Your task to perform on an android device: stop showing notifications on the lock screen Image 0: 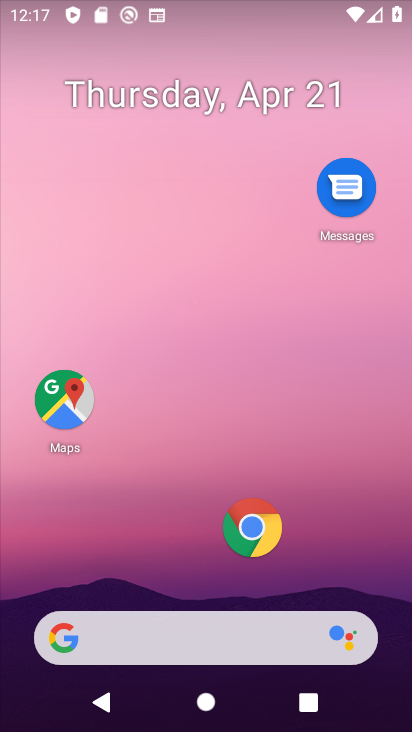
Step 0: drag from (331, 579) to (381, 157)
Your task to perform on an android device: stop showing notifications on the lock screen Image 1: 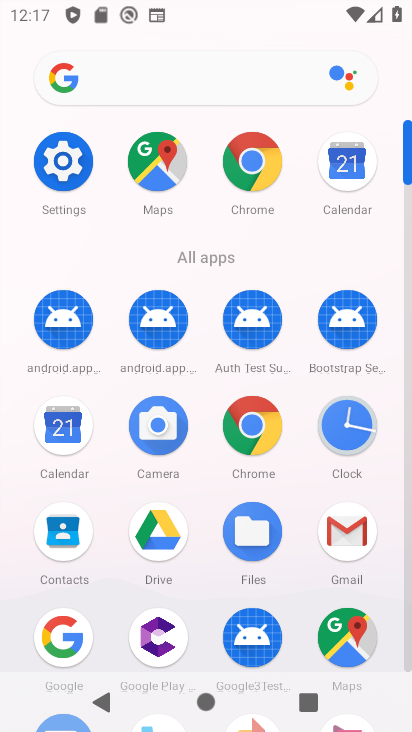
Step 1: click (83, 174)
Your task to perform on an android device: stop showing notifications on the lock screen Image 2: 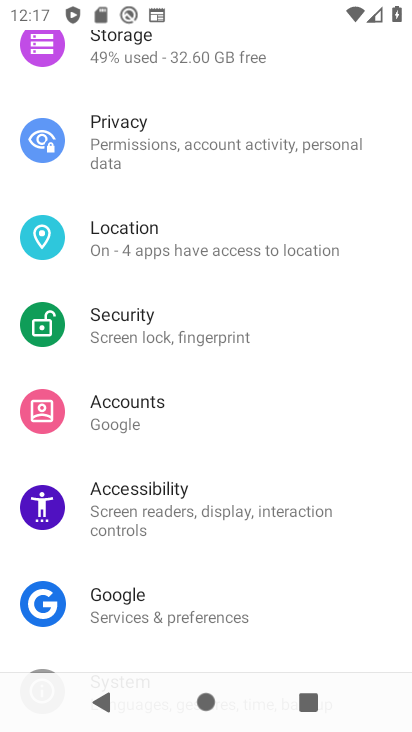
Step 2: drag from (153, 316) to (166, 386)
Your task to perform on an android device: stop showing notifications on the lock screen Image 3: 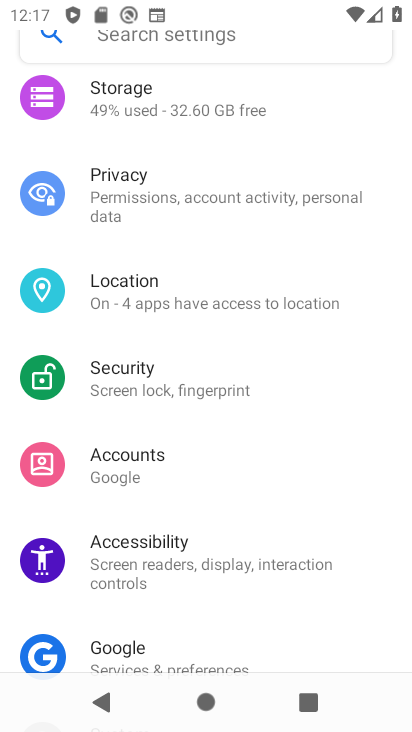
Step 3: drag from (148, 304) to (190, 390)
Your task to perform on an android device: stop showing notifications on the lock screen Image 4: 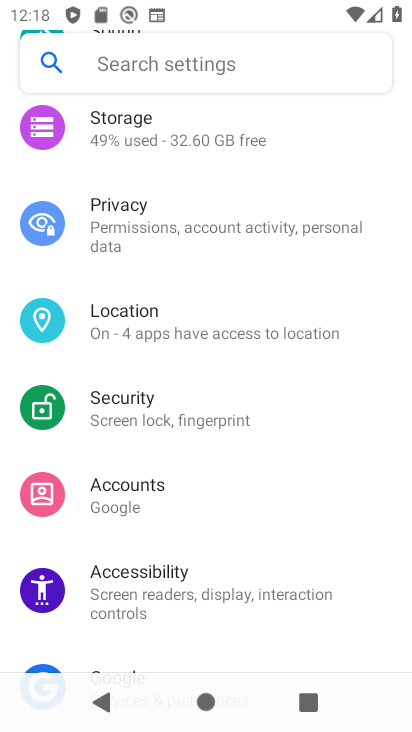
Step 4: drag from (164, 315) to (218, 403)
Your task to perform on an android device: stop showing notifications on the lock screen Image 5: 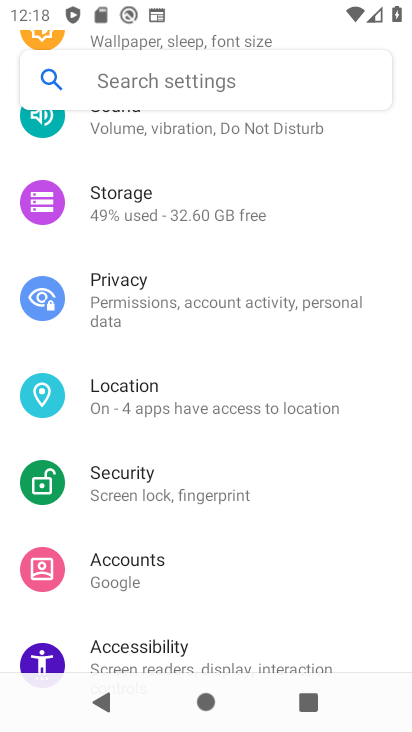
Step 5: drag from (195, 330) to (231, 402)
Your task to perform on an android device: stop showing notifications on the lock screen Image 6: 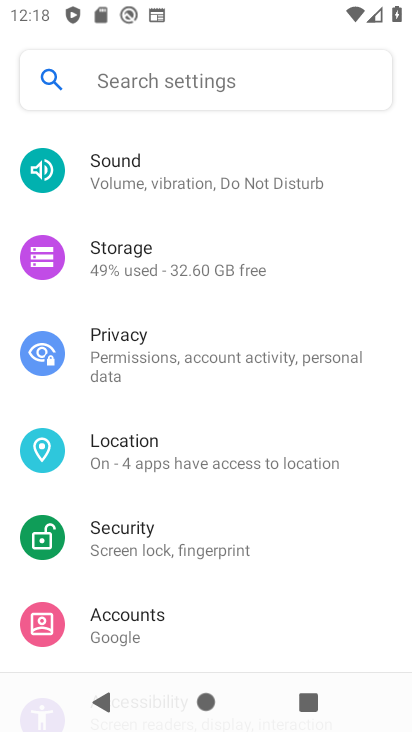
Step 6: drag from (193, 345) to (258, 439)
Your task to perform on an android device: stop showing notifications on the lock screen Image 7: 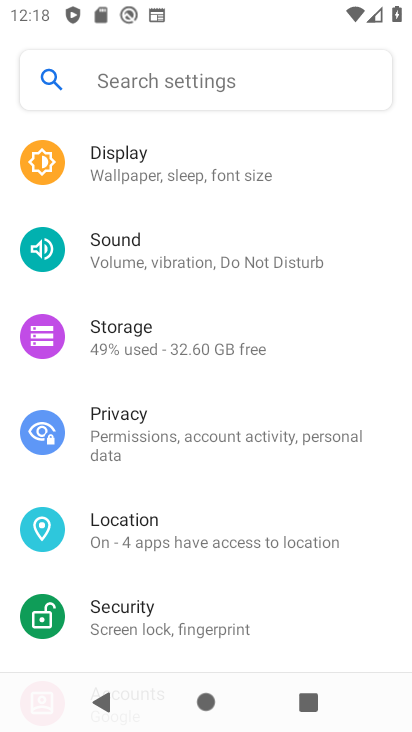
Step 7: drag from (209, 343) to (272, 422)
Your task to perform on an android device: stop showing notifications on the lock screen Image 8: 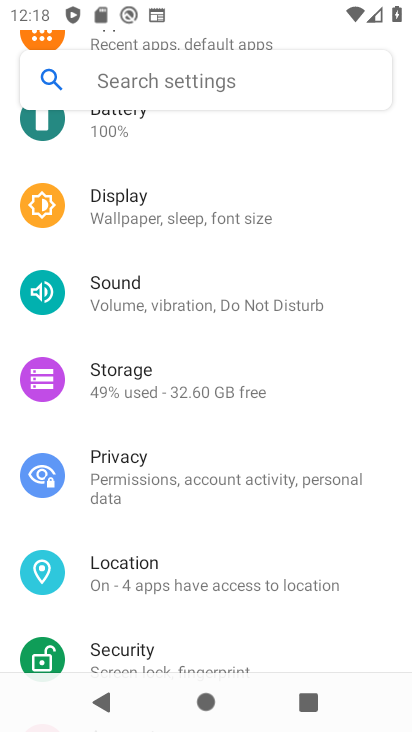
Step 8: drag from (247, 327) to (304, 412)
Your task to perform on an android device: stop showing notifications on the lock screen Image 9: 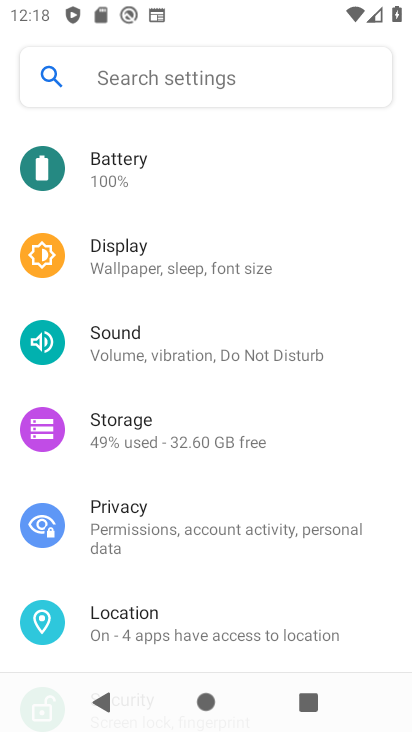
Step 9: drag from (267, 319) to (307, 391)
Your task to perform on an android device: stop showing notifications on the lock screen Image 10: 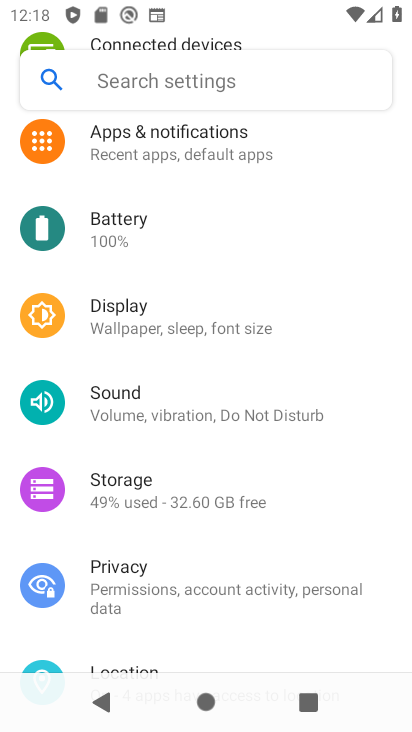
Step 10: drag from (267, 325) to (328, 422)
Your task to perform on an android device: stop showing notifications on the lock screen Image 11: 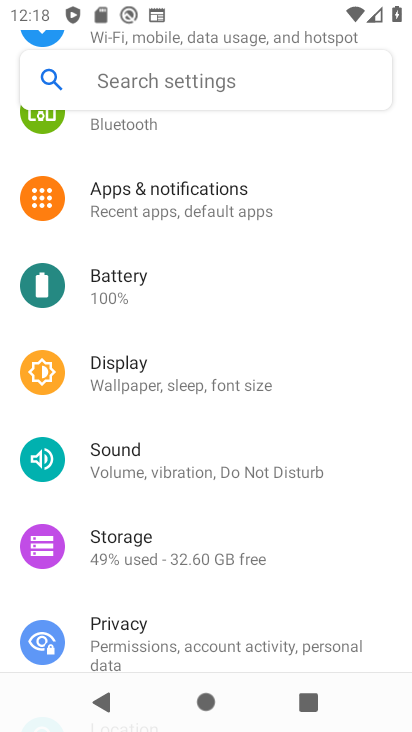
Step 11: click (245, 195)
Your task to perform on an android device: stop showing notifications on the lock screen Image 12: 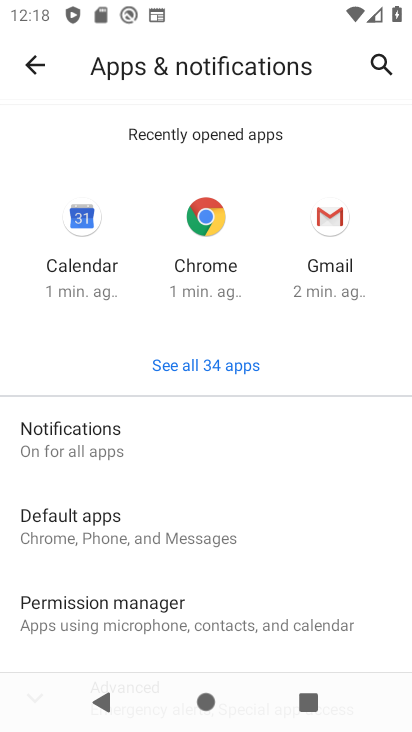
Step 12: drag from (212, 585) to (222, 536)
Your task to perform on an android device: stop showing notifications on the lock screen Image 13: 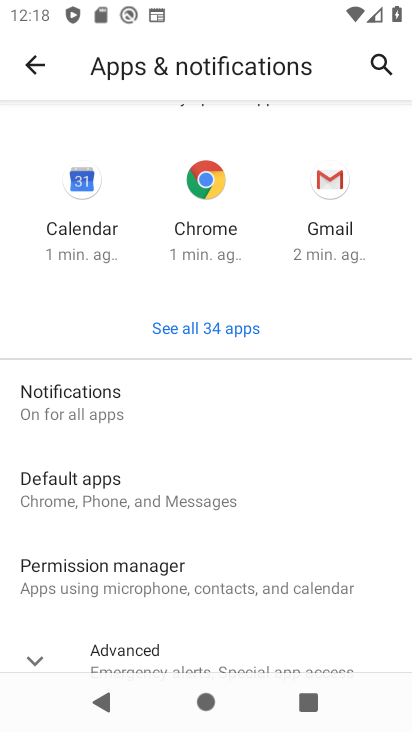
Step 13: click (171, 405)
Your task to perform on an android device: stop showing notifications on the lock screen Image 14: 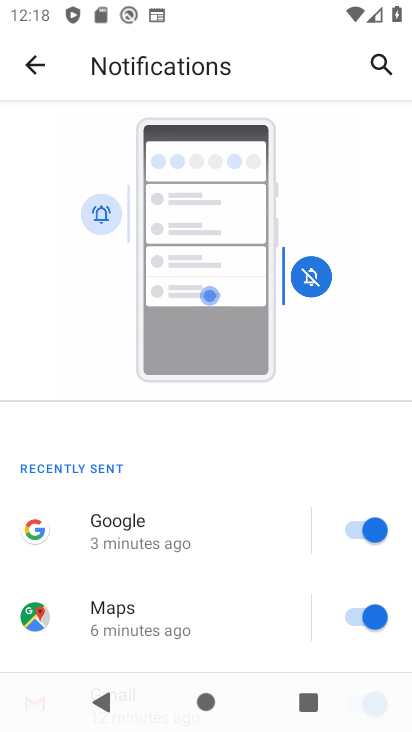
Step 14: drag from (175, 503) to (213, 400)
Your task to perform on an android device: stop showing notifications on the lock screen Image 15: 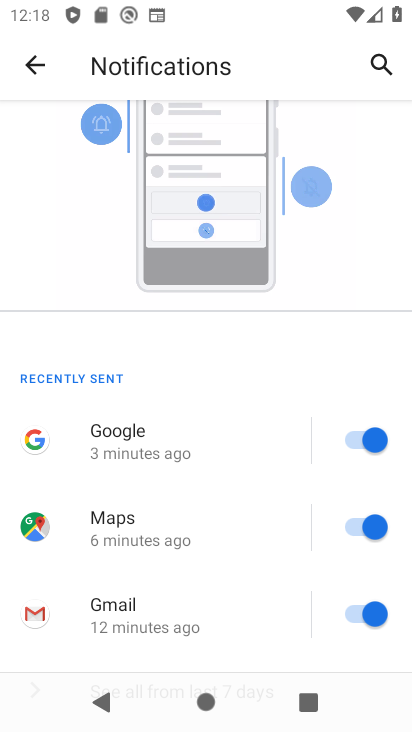
Step 15: drag from (184, 546) to (216, 415)
Your task to perform on an android device: stop showing notifications on the lock screen Image 16: 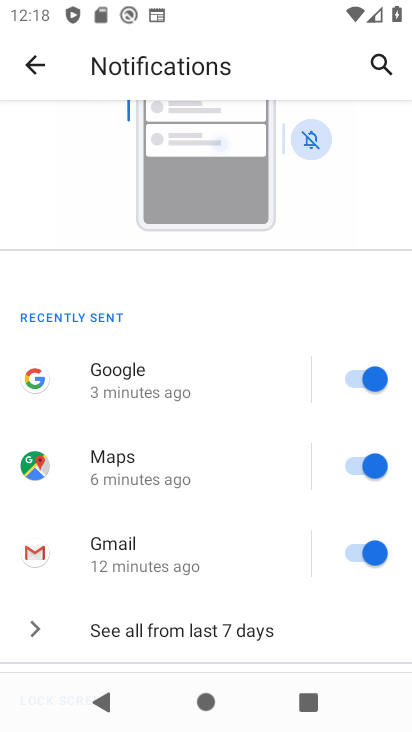
Step 16: drag from (181, 554) to (232, 399)
Your task to perform on an android device: stop showing notifications on the lock screen Image 17: 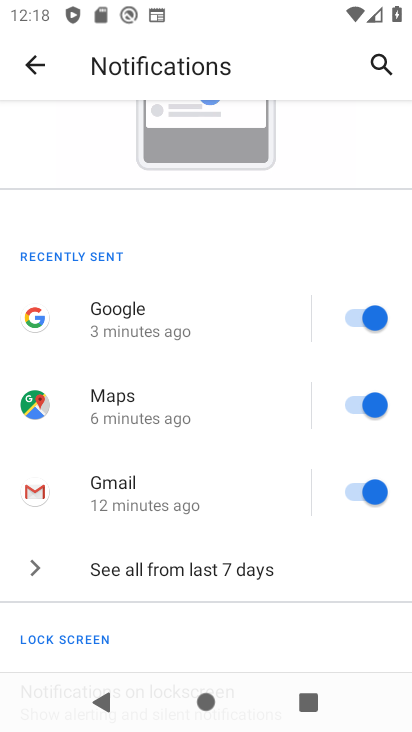
Step 17: drag from (226, 540) to (288, 427)
Your task to perform on an android device: stop showing notifications on the lock screen Image 18: 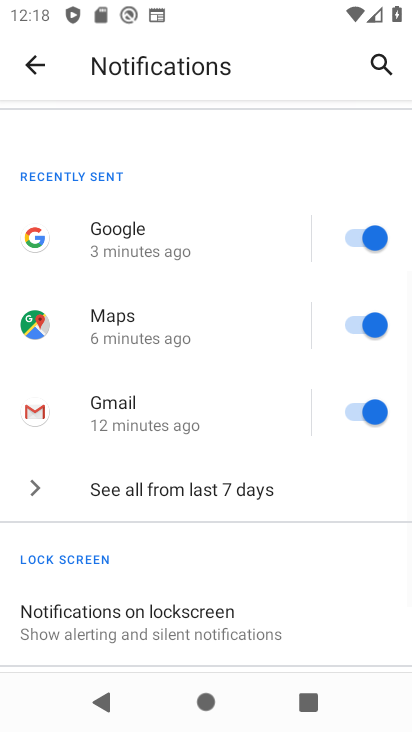
Step 18: drag from (241, 568) to (273, 467)
Your task to perform on an android device: stop showing notifications on the lock screen Image 19: 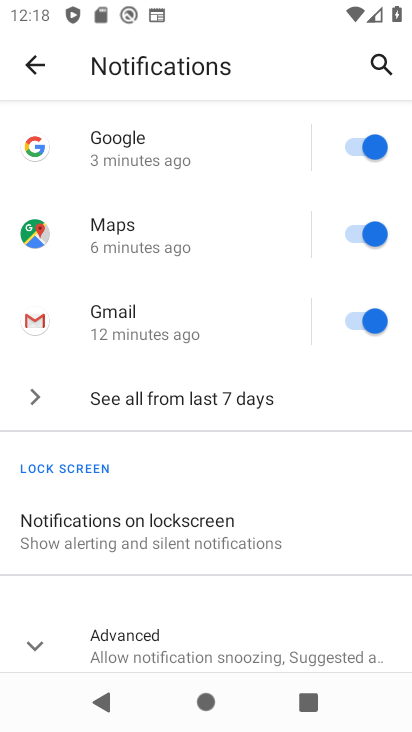
Step 19: click (233, 535)
Your task to perform on an android device: stop showing notifications on the lock screen Image 20: 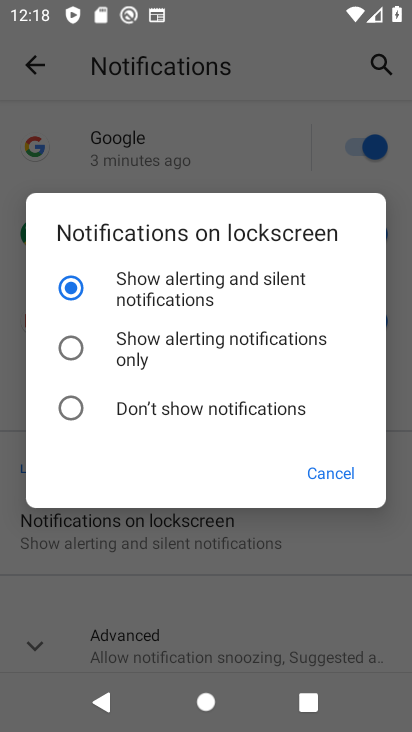
Step 20: click (258, 410)
Your task to perform on an android device: stop showing notifications on the lock screen Image 21: 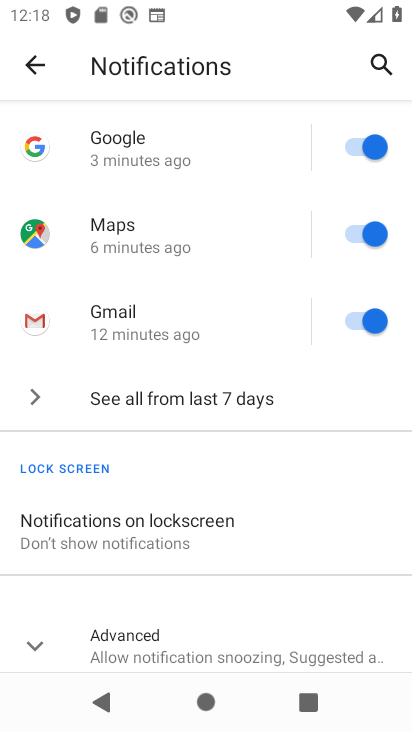
Step 21: task complete